Your task to perform on an android device: Open the calendar app, open the side menu, and click the "Day" option Image 0: 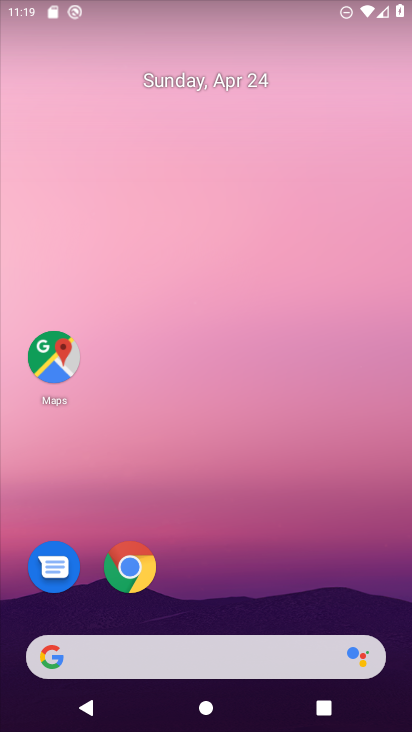
Step 0: drag from (365, 551) to (350, 261)
Your task to perform on an android device: Open the calendar app, open the side menu, and click the "Day" option Image 1: 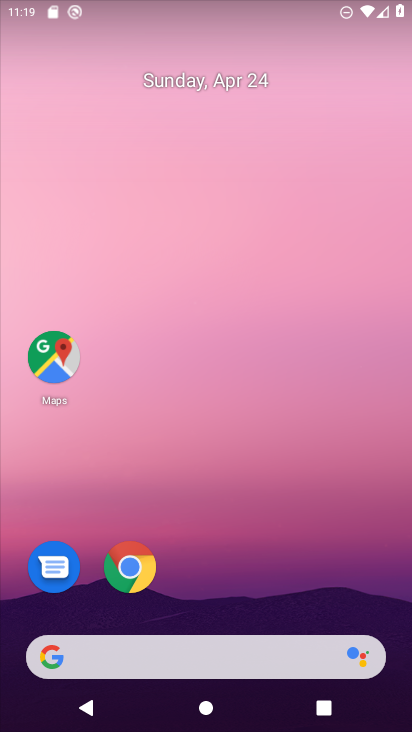
Step 1: drag from (328, 630) to (358, 3)
Your task to perform on an android device: Open the calendar app, open the side menu, and click the "Day" option Image 2: 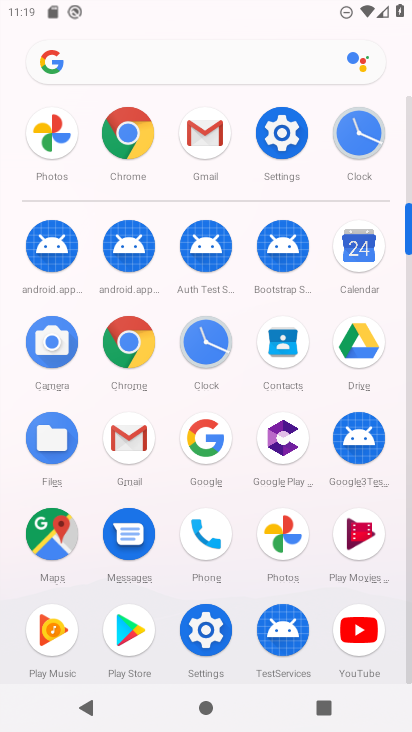
Step 2: click (352, 264)
Your task to perform on an android device: Open the calendar app, open the side menu, and click the "Day" option Image 3: 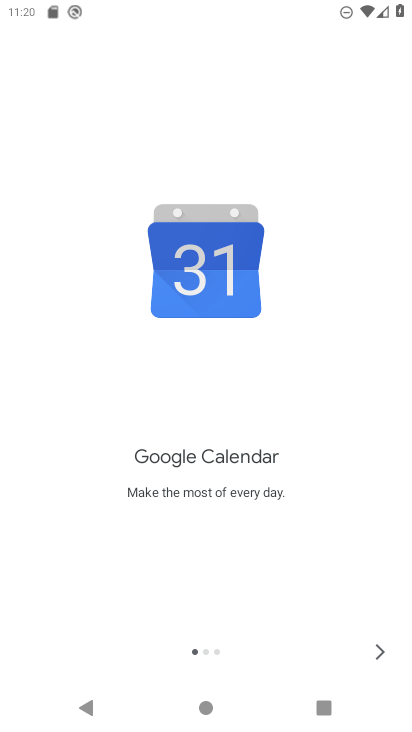
Step 3: drag from (386, 573) to (408, 684)
Your task to perform on an android device: Open the calendar app, open the side menu, and click the "Day" option Image 4: 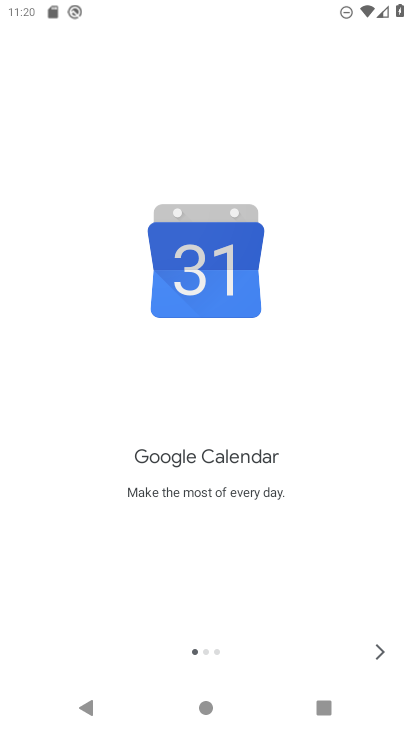
Step 4: click (378, 652)
Your task to perform on an android device: Open the calendar app, open the side menu, and click the "Day" option Image 5: 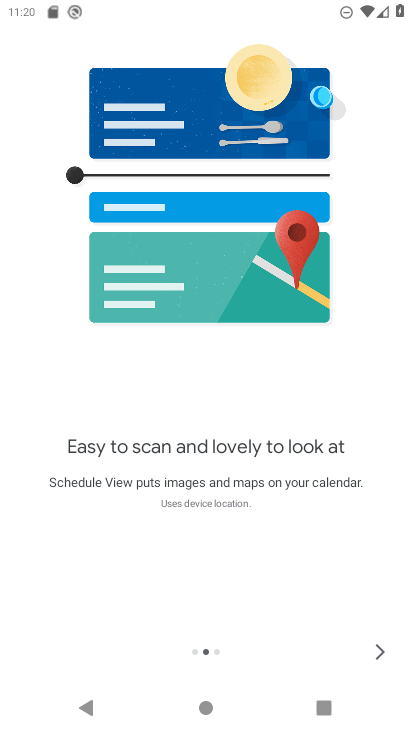
Step 5: click (387, 656)
Your task to perform on an android device: Open the calendar app, open the side menu, and click the "Day" option Image 6: 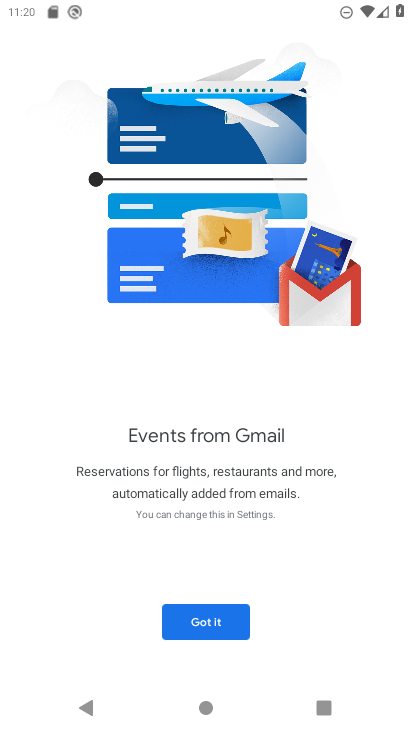
Step 6: click (230, 631)
Your task to perform on an android device: Open the calendar app, open the side menu, and click the "Day" option Image 7: 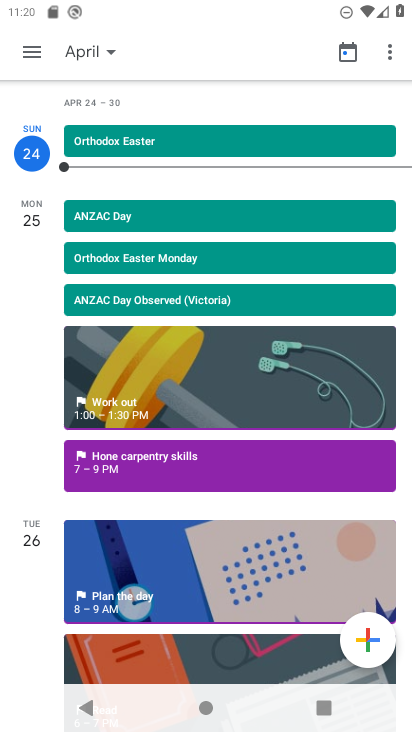
Step 7: click (37, 51)
Your task to perform on an android device: Open the calendar app, open the side menu, and click the "Day" option Image 8: 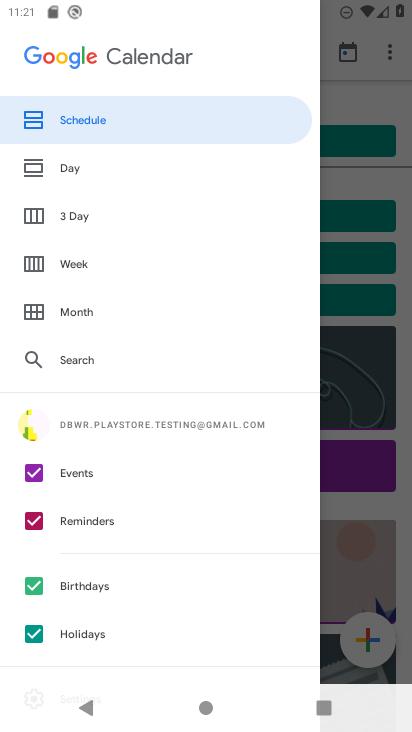
Step 8: click (83, 177)
Your task to perform on an android device: Open the calendar app, open the side menu, and click the "Day" option Image 9: 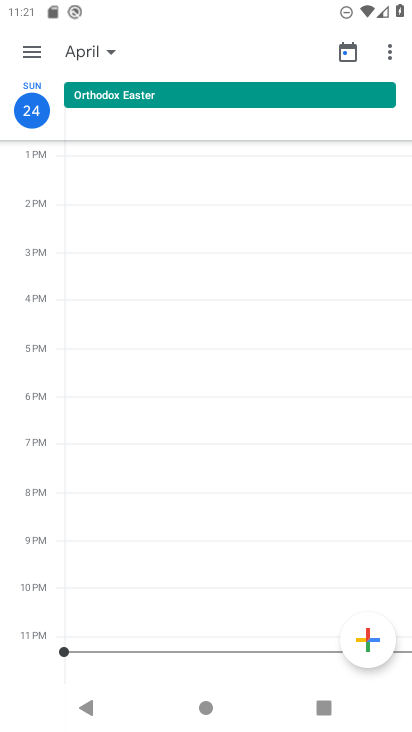
Step 9: task complete